Your task to perform on an android device: all mails in gmail Image 0: 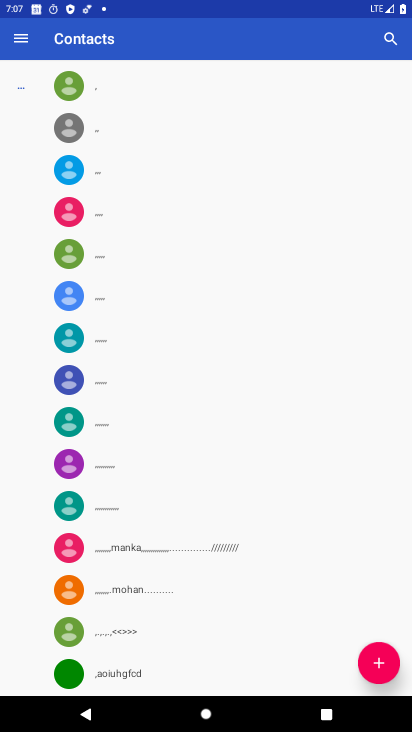
Step 0: press home button
Your task to perform on an android device: all mails in gmail Image 1: 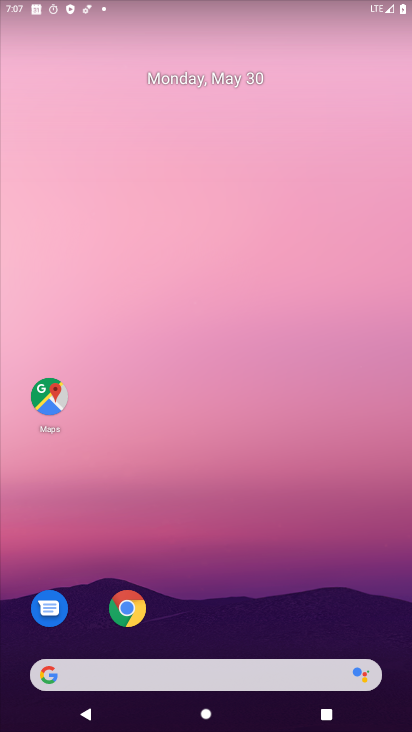
Step 1: drag from (213, 598) to (301, 124)
Your task to perform on an android device: all mails in gmail Image 2: 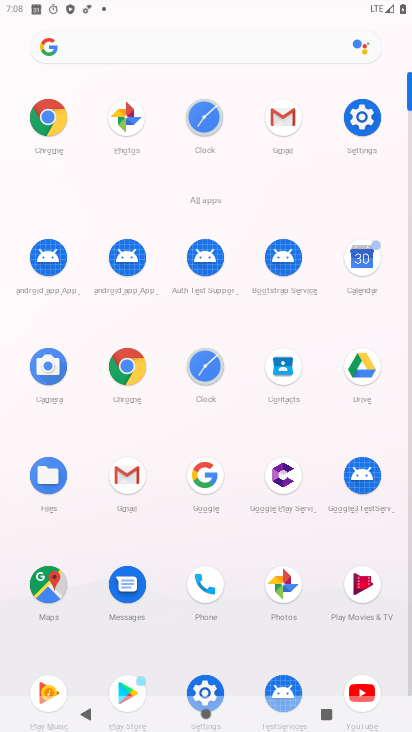
Step 2: click (289, 119)
Your task to perform on an android device: all mails in gmail Image 3: 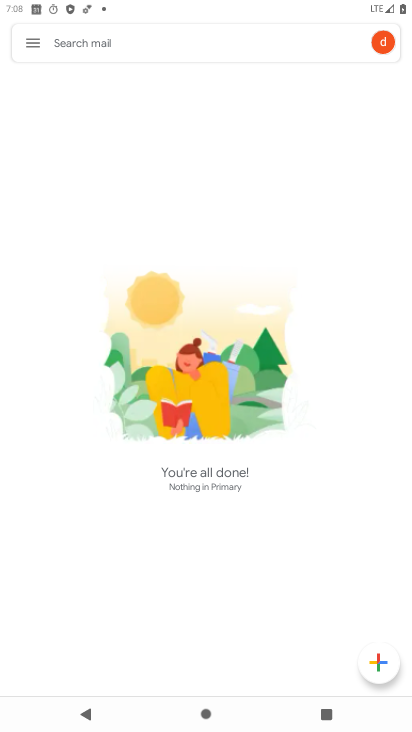
Step 3: click (29, 42)
Your task to perform on an android device: all mails in gmail Image 4: 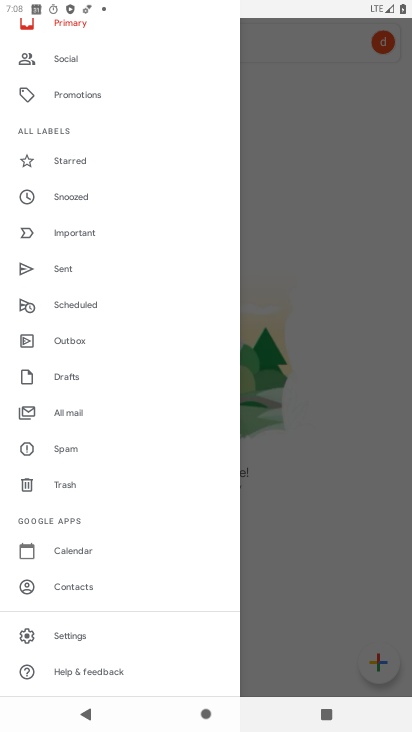
Step 4: click (83, 416)
Your task to perform on an android device: all mails in gmail Image 5: 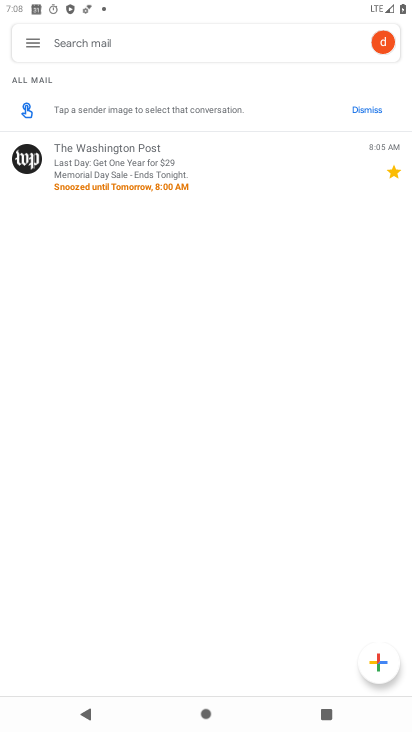
Step 5: task complete